Your task to perform on an android device: Open Reddit.com Image 0: 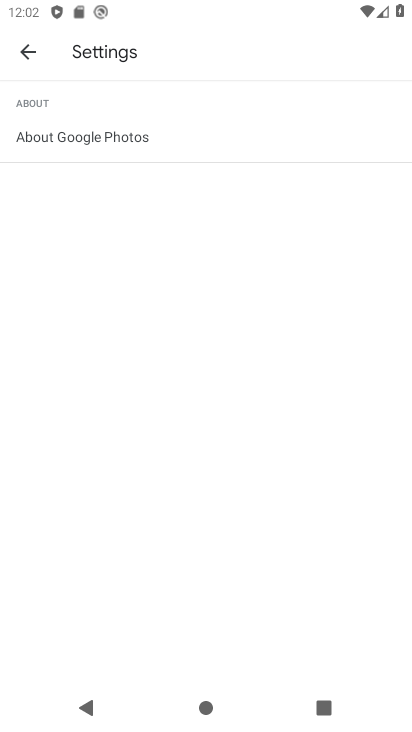
Step 0: press home button
Your task to perform on an android device: Open Reddit.com Image 1: 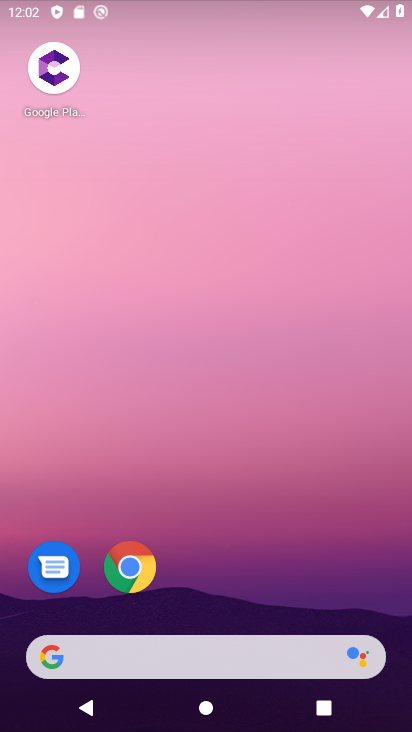
Step 1: click (134, 568)
Your task to perform on an android device: Open Reddit.com Image 2: 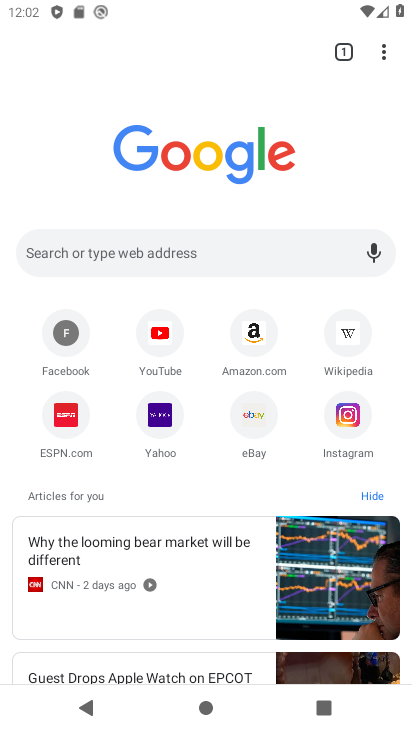
Step 2: click (173, 257)
Your task to perform on an android device: Open Reddit.com Image 3: 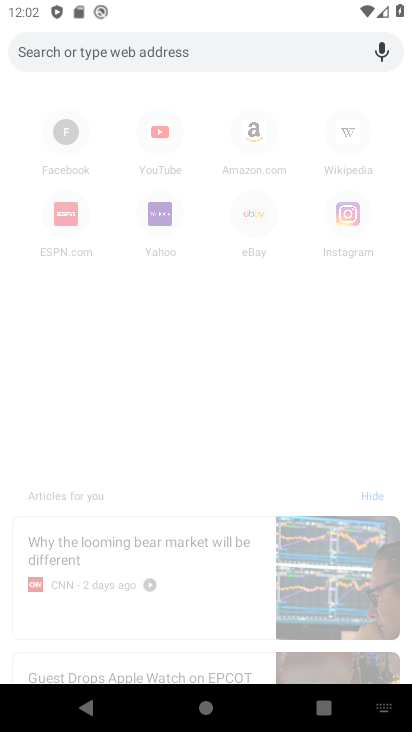
Step 3: type "Reddit.com"
Your task to perform on an android device: Open Reddit.com Image 4: 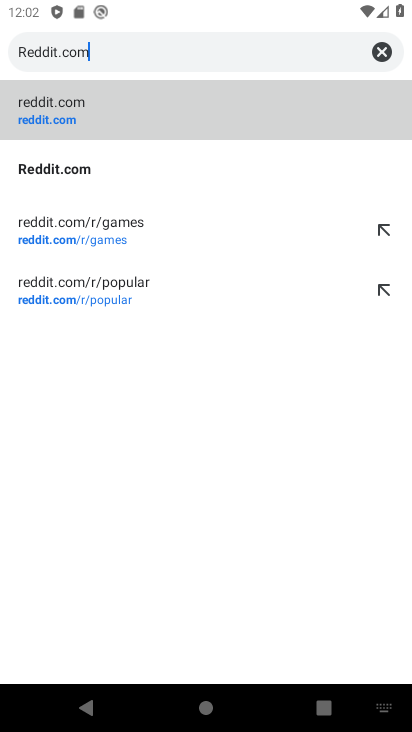
Step 4: click (121, 119)
Your task to perform on an android device: Open Reddit.com Image 5: 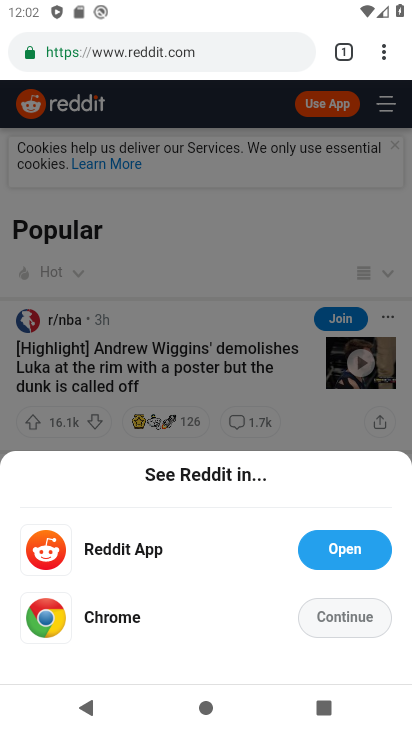
Step 5: click (350, 628)
Your task to perform on an android device: Open Reddit.com Image 6: 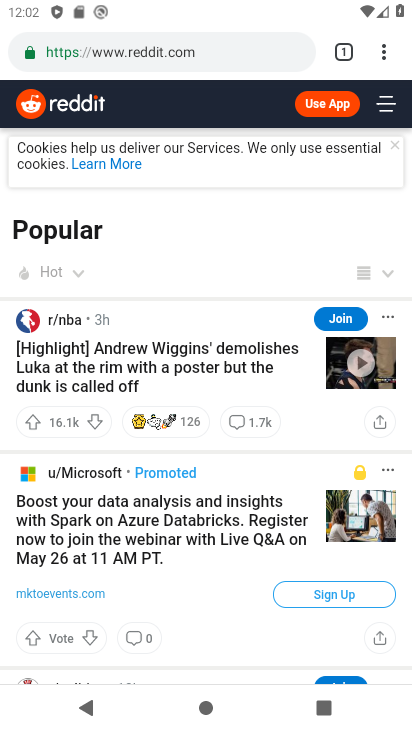
Step 6: task complete